Your task to perform on an android device: toggle javascript in the chrome app Image 0: 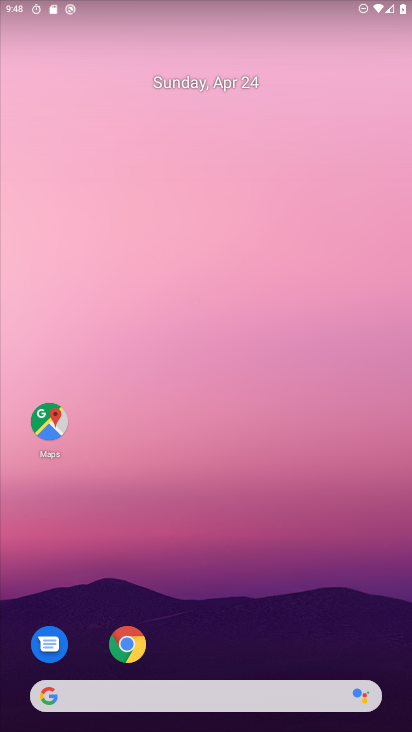
Step 0: drag from (202, 667) to (262, 0)
Your task to perform on an android device: toggle javascript in the chrome app Image 1: 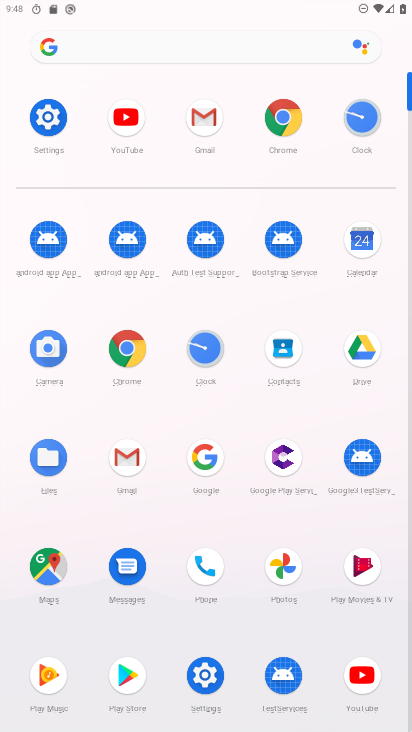
Step 1: click (277, 113)
Your task to perform on an android device: toggle javascript in the chrome app Image 2: 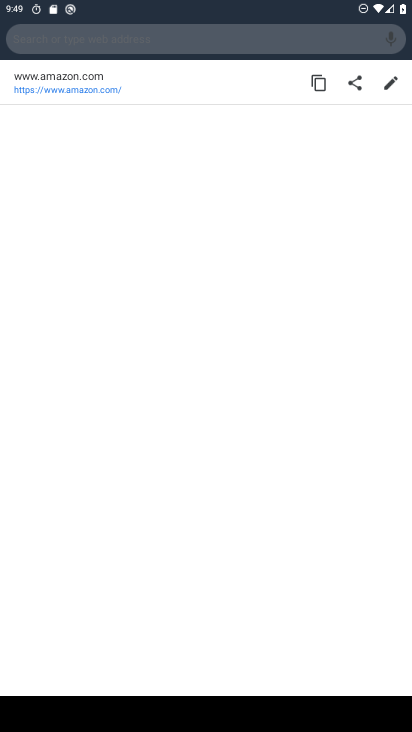
Step 2: press back button
Your task to perform on an android device: toggle javascript in the chrome app Image 3: 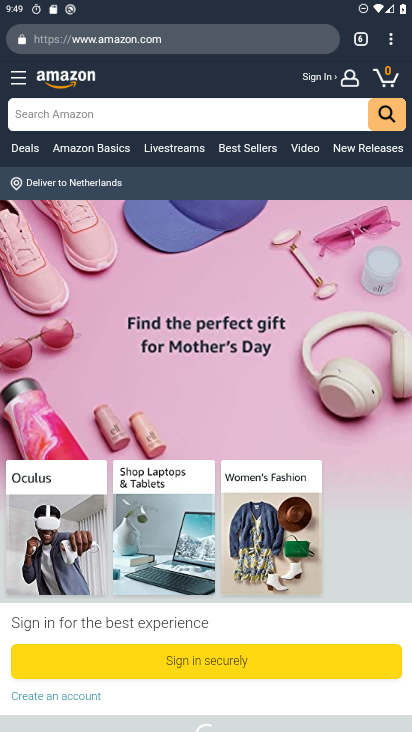
Step 3: drag from (389, 35) to (243, 516)
Your task to perform on an android device: toggle javascript in the chrome app Image 4: 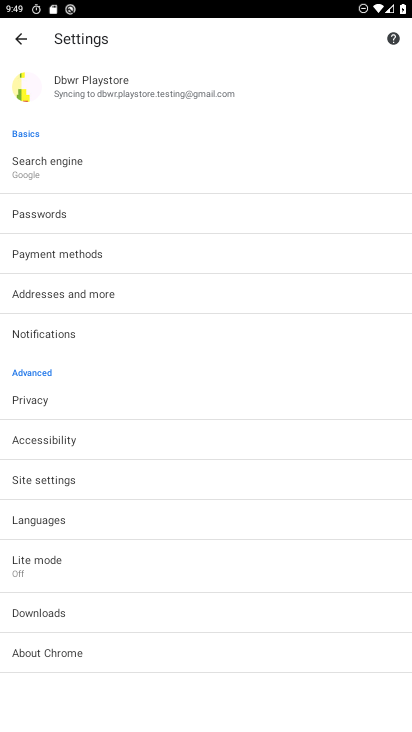
Step 4: click (52, 479)
Your task to perform on an android device: toggle javascript in the chrome app Image 5: 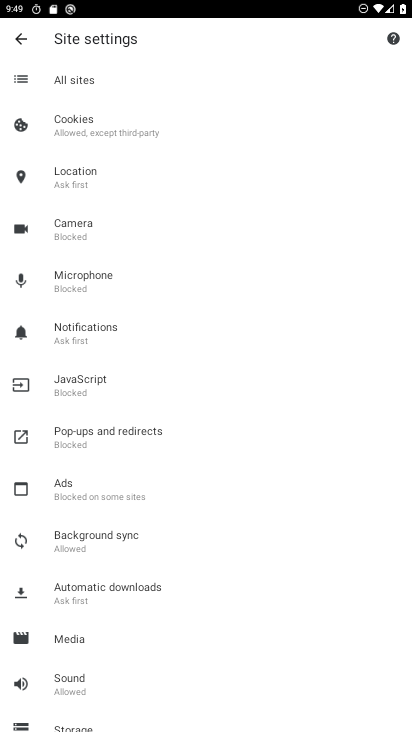
Step 5: click (78, 394)
Your task to perform on an android device: toggle javascript in the chrome app Image 6: 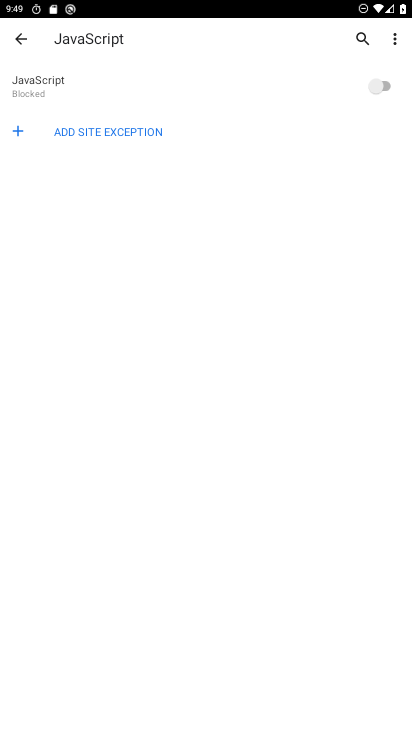
Step 6: click (370, 84)
Your task to perform on an android device: toggle javascript in the chrome app Image 7: 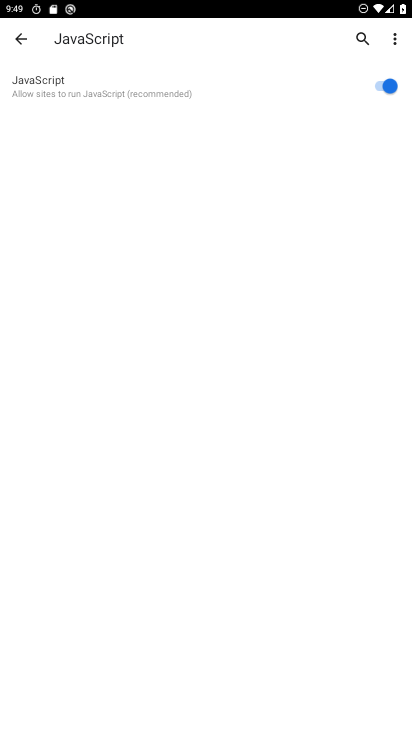
Step 7: task complete